Your task to perform on an android device: turn on javascript in the chrome app Image 0: 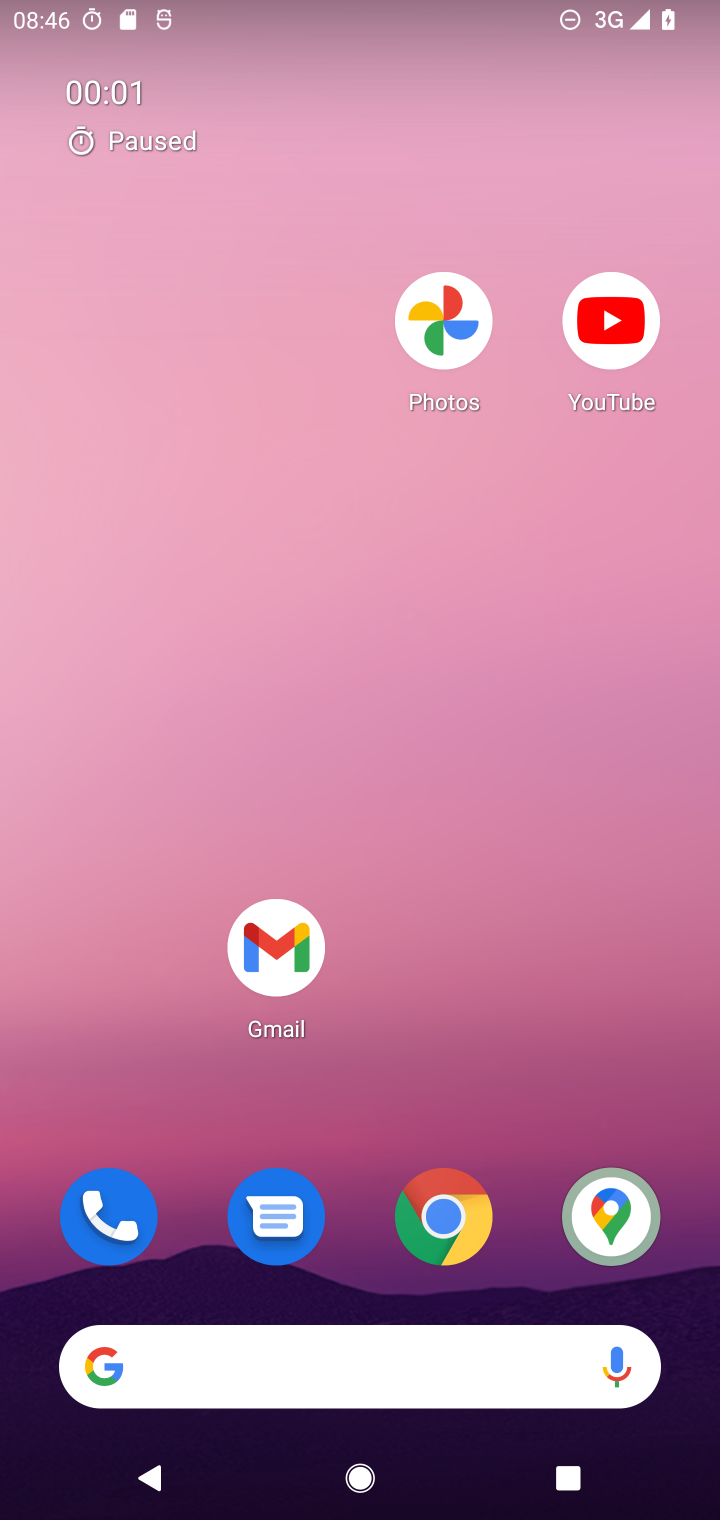
Step 0: drag from (519, 1088) to (567, 28)
Your task to perform on an android device: turn on javascript in the chrome app Image 1: 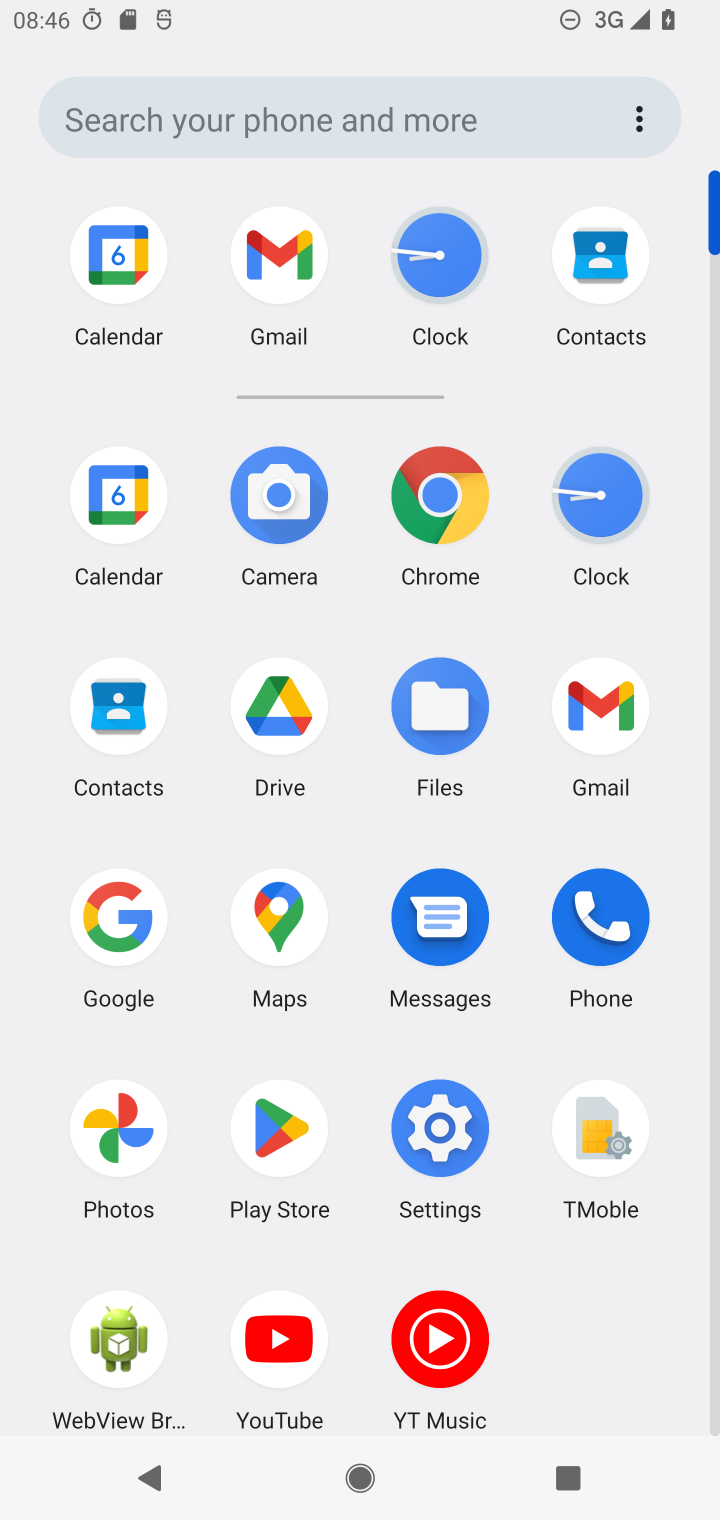
Step 1: click (434, 494)
Your task to perform on an android device: turn on javascript in the chrome app Image 2: 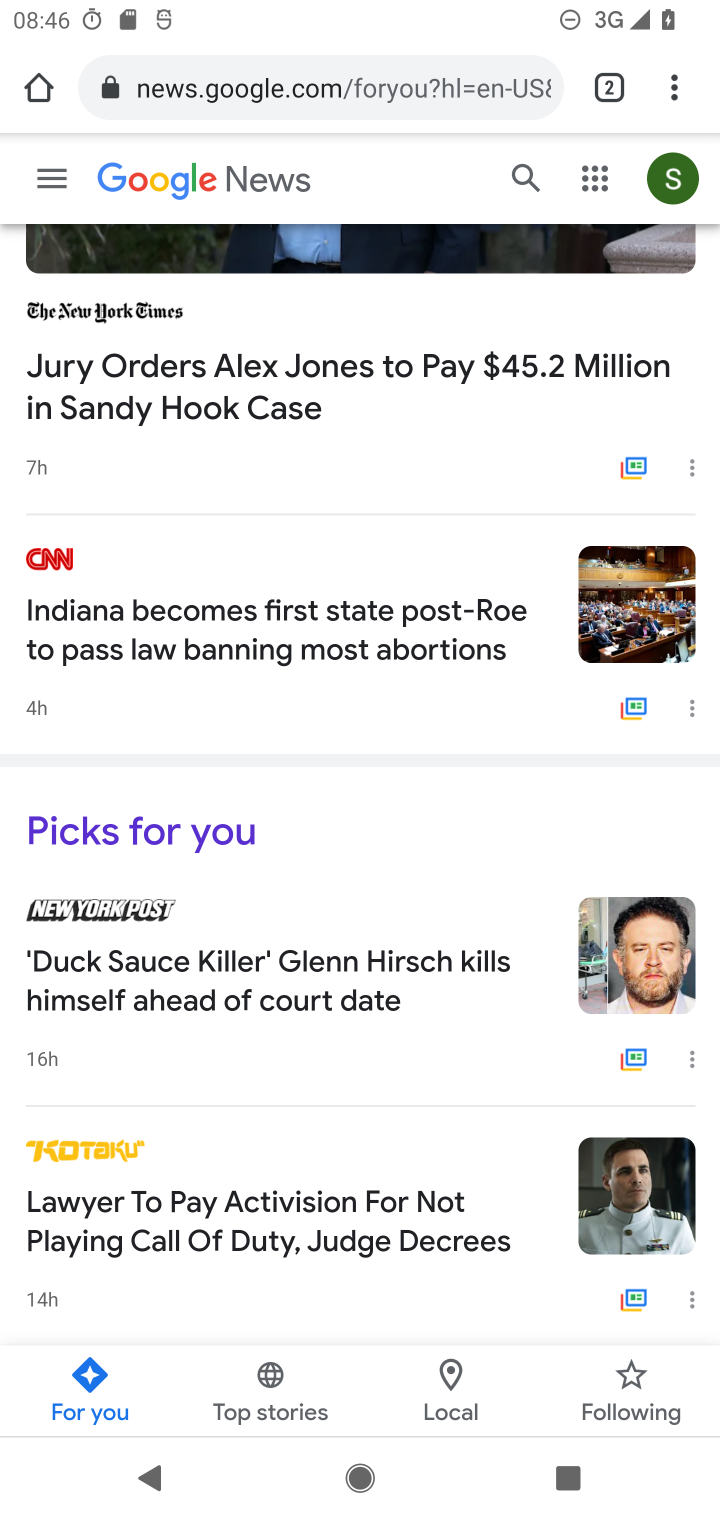
Step 2: drag from (679, 73) to (440, 1188)
Your task to perform on an android device: turn on javascript in the chrome app Image 3: 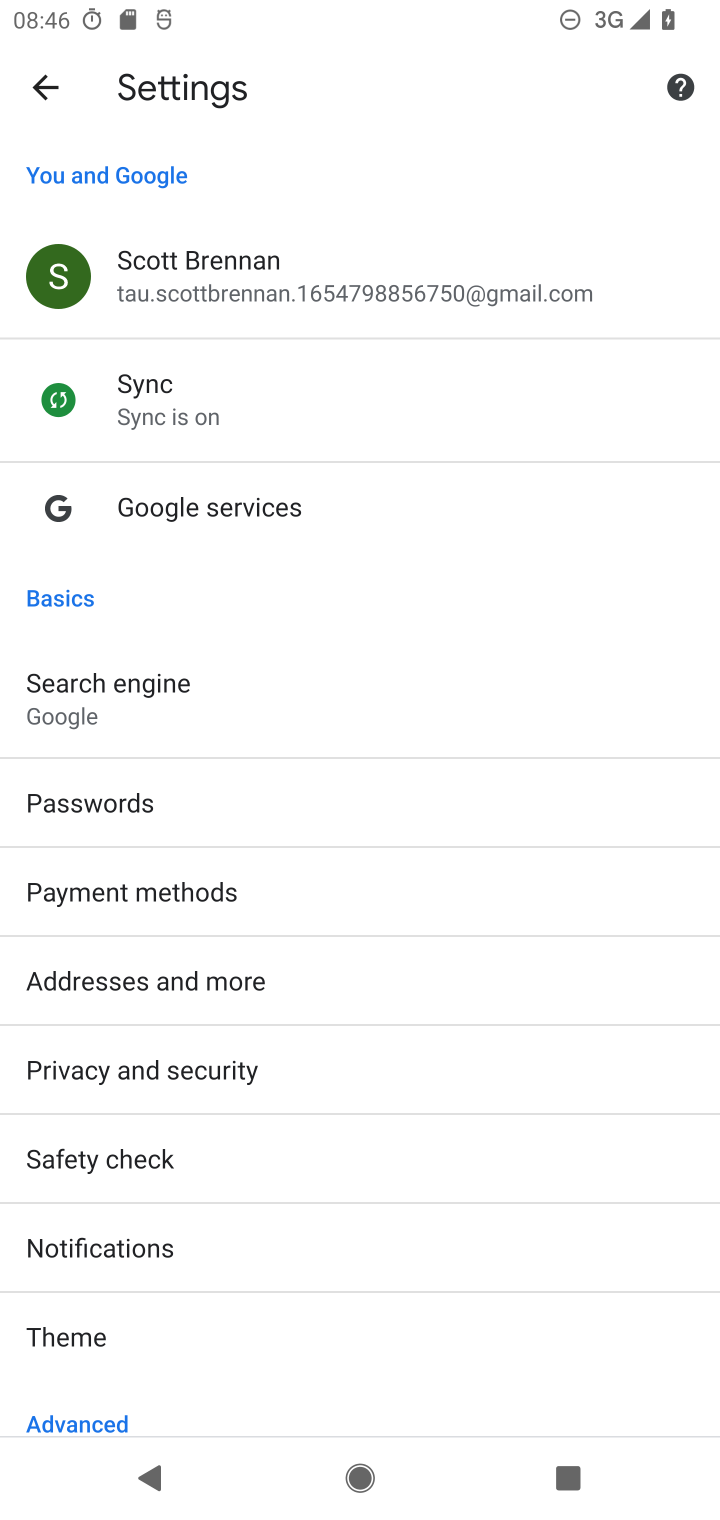
Step 3: drag from (334, 1355) to (419, 459)
Your task to perform on an android device: turn on javascript in the chrome app Image 4: 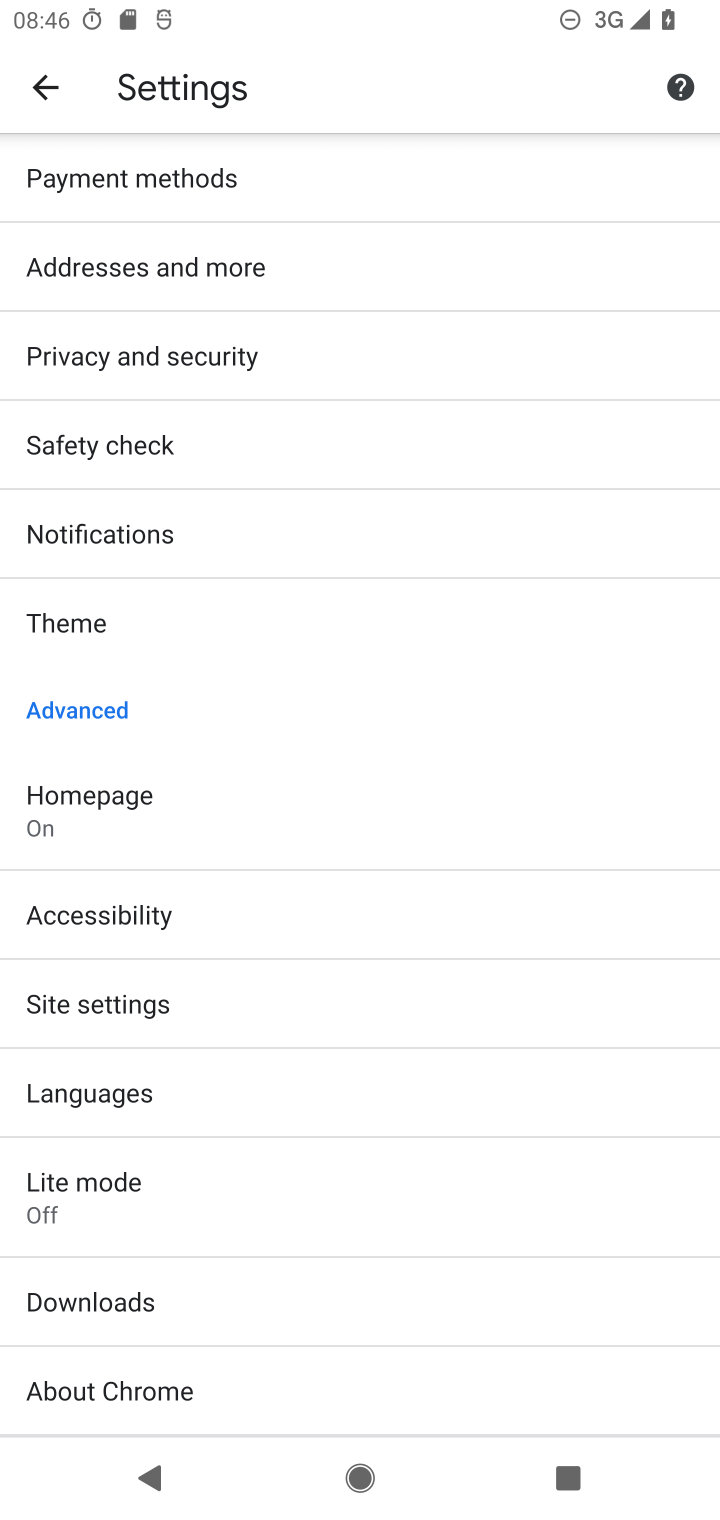
Step 4: click (109, 1010)
Your task to perform on an android device: turn on javascript in the chrome app Image 5: 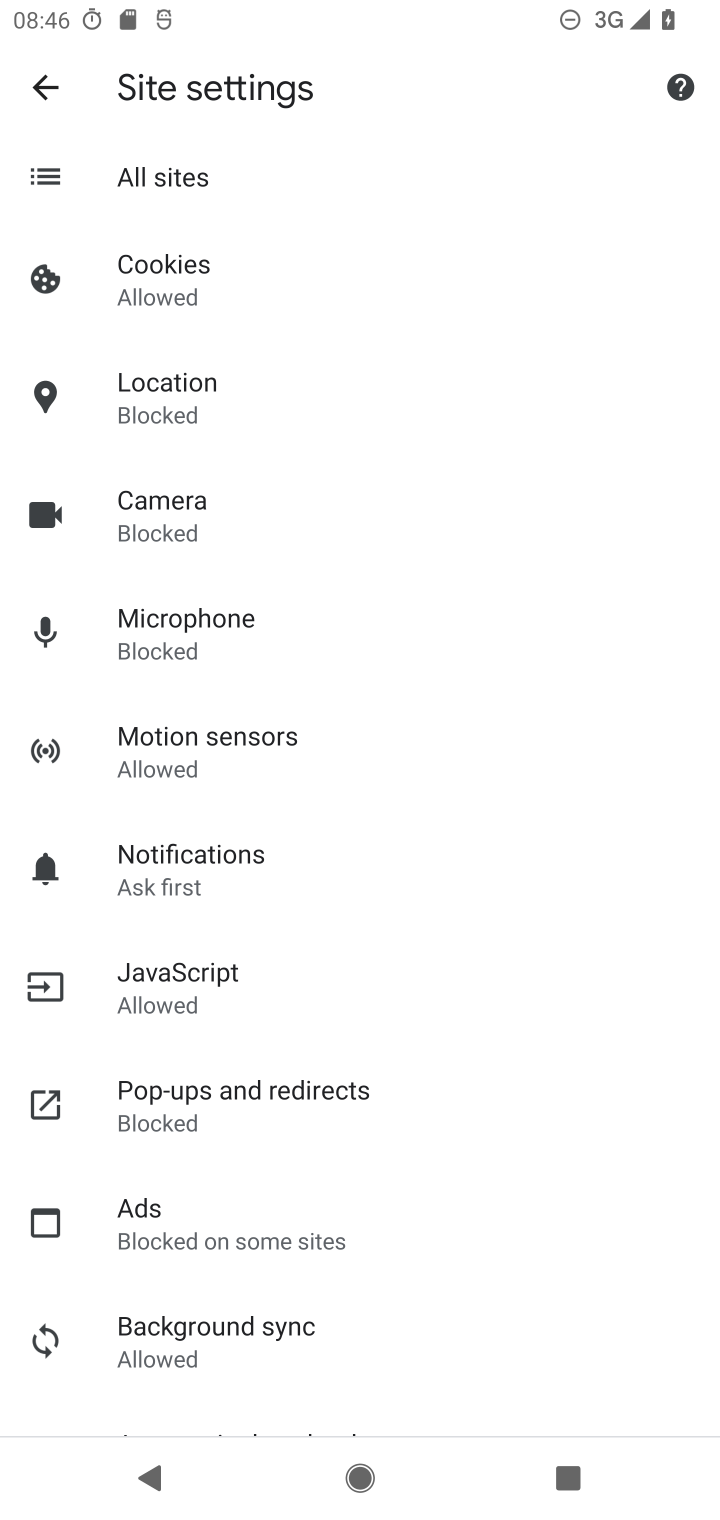
Step 5: click (137, 995)
Your task to perform on an android device: turn on javascript in the chrome app Image 6: 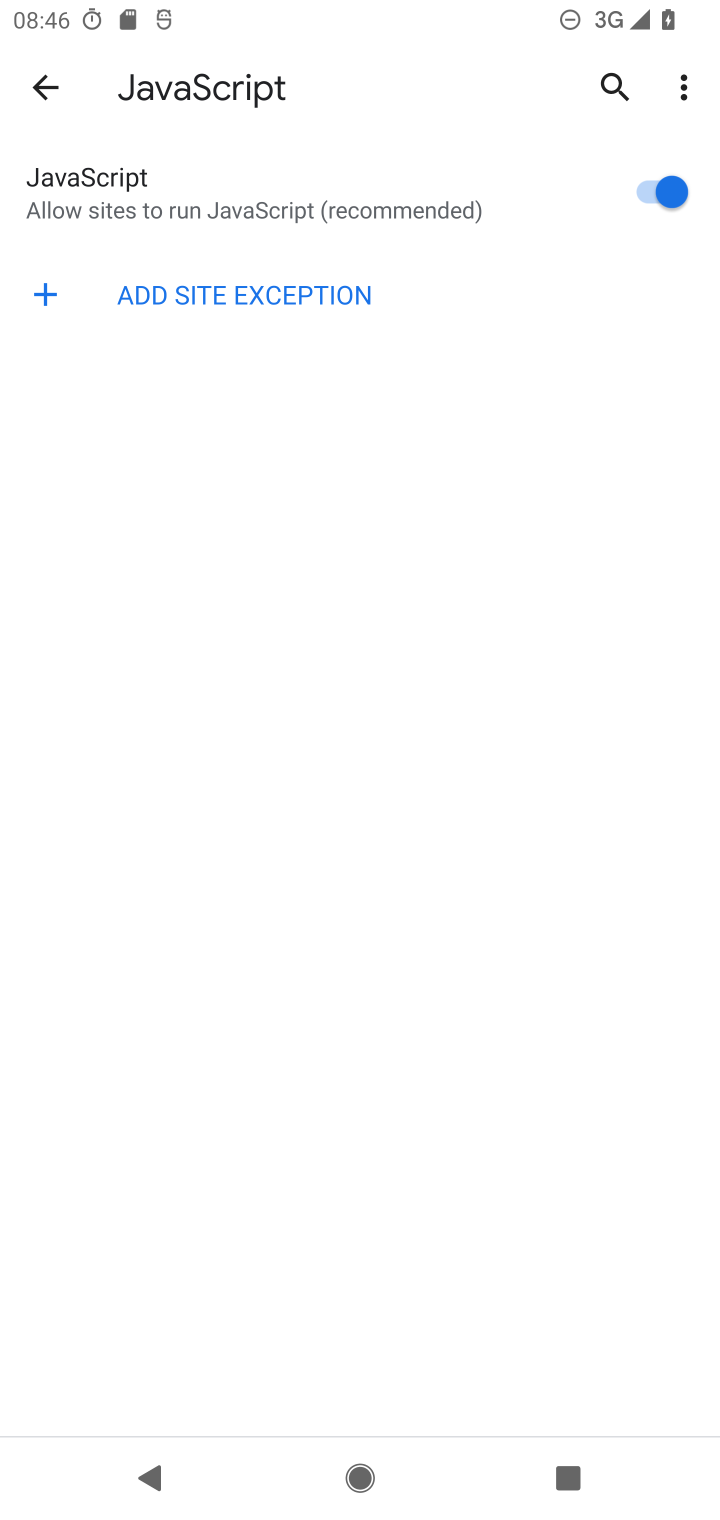
Step 6: task complete